Your task to perform on an android device: set default search engine in the chrome app Image 0: 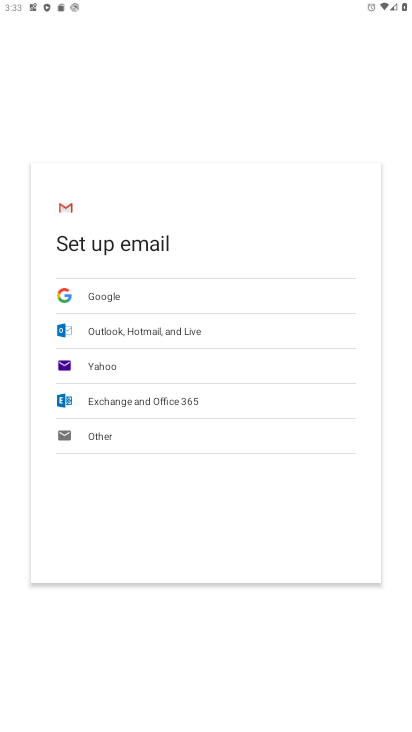
Step 0: press home button
Your task to perform on an android device: set default search engine in the chrome app Image 1: 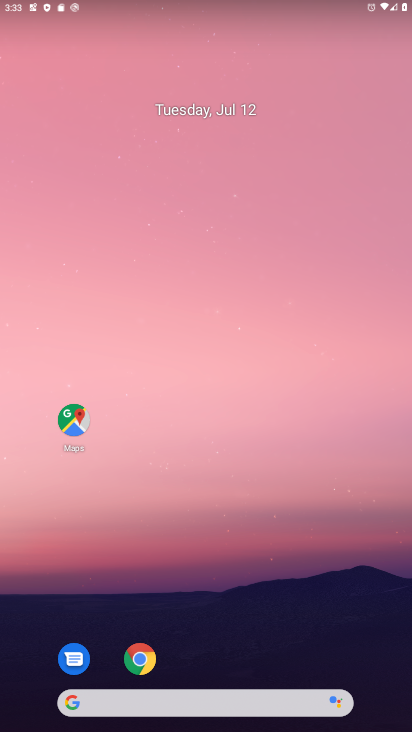
Step 1: click (136, 651)
Your task to perform on an android device: set default search engine in the chrome app Image 2: 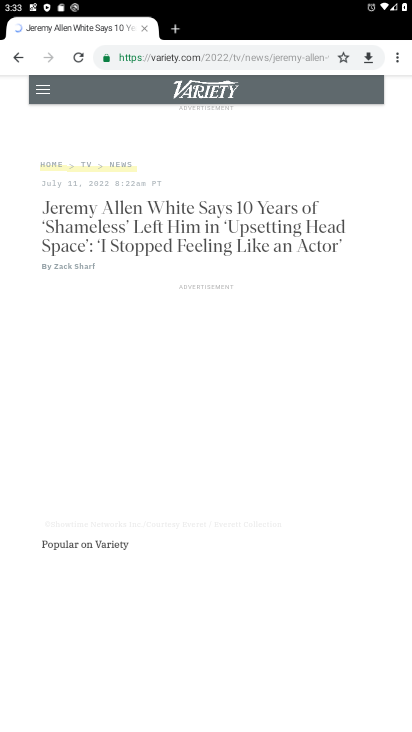
Step 2: drag from (136, 648) to (240, 303)
Your task to perform on an android device: set default search engine in the chrome app Image 3: 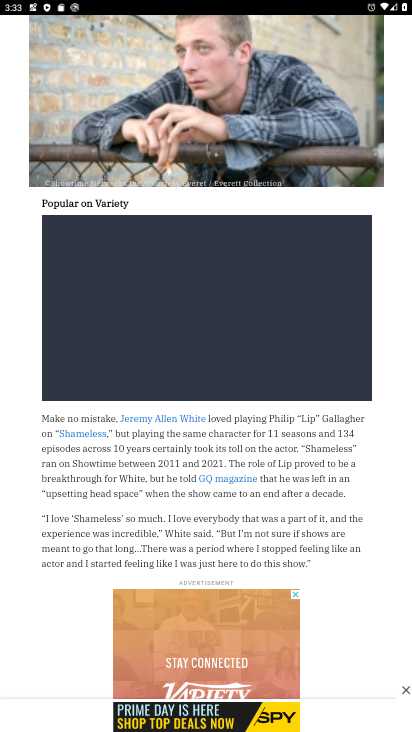
Step 3: drag from (328, 53) to (328, 441)
Your task to perform on an android device: set default search engine in the chrome app Image 4: 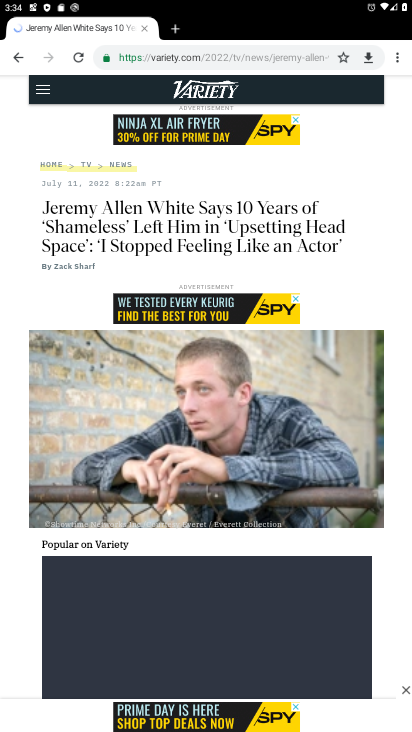
Step 4: click (311, 415)
Your task to perform on an android device: set default search engine in the chrome app Image 5: 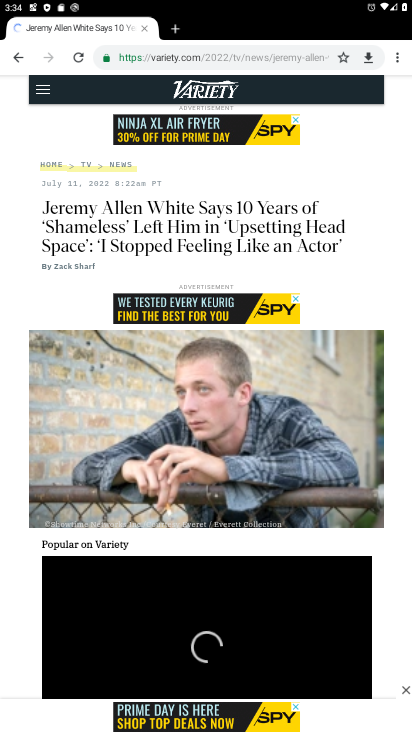
Step 5: drag from (334, 325) to (336, 362)
Your task to perform on an android device: set default search engine in the chrome app Image 6: 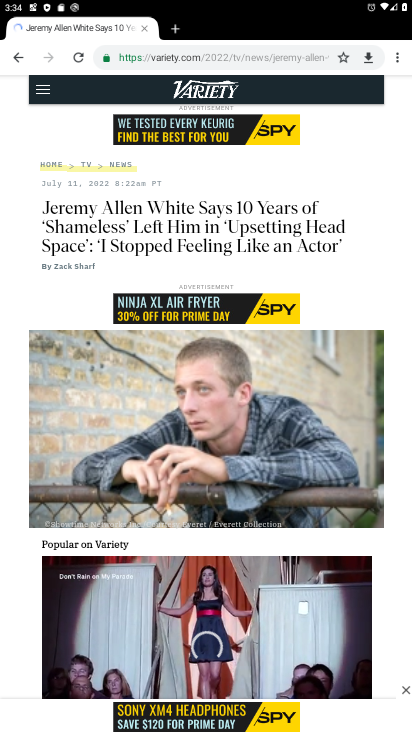
Step 6: click (390, 58)
Your task to perform on an android device: set default search engine in the chrome app Image 7: 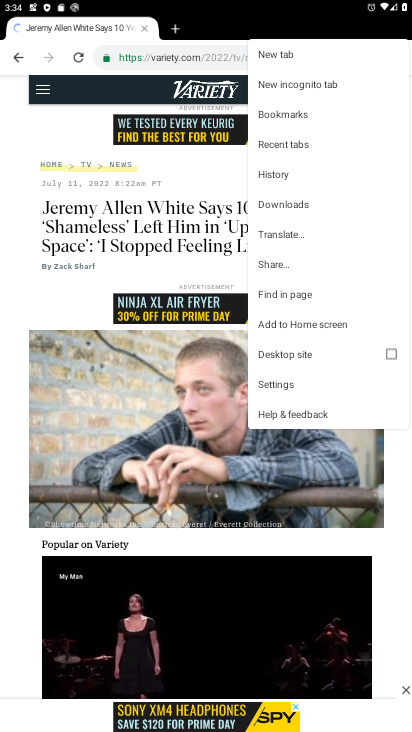
Step 7: click (312, 382)
Your task to perform on an android device: set default search engine in the chrome app Image 8: 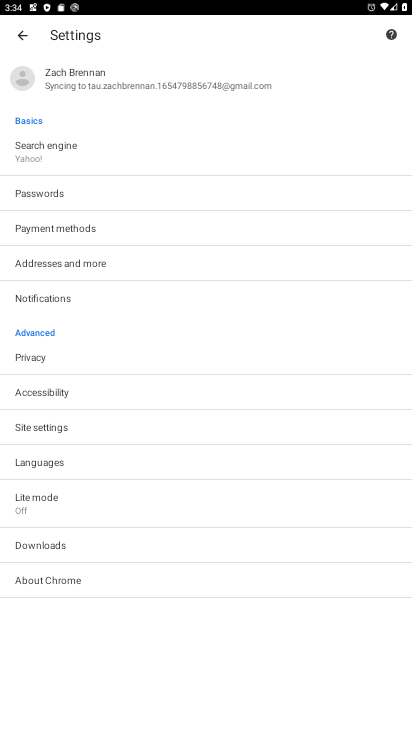
Step 8: click (72, 141)
Your task to perform on an android device: set default search engine in the chrome app Image 9: 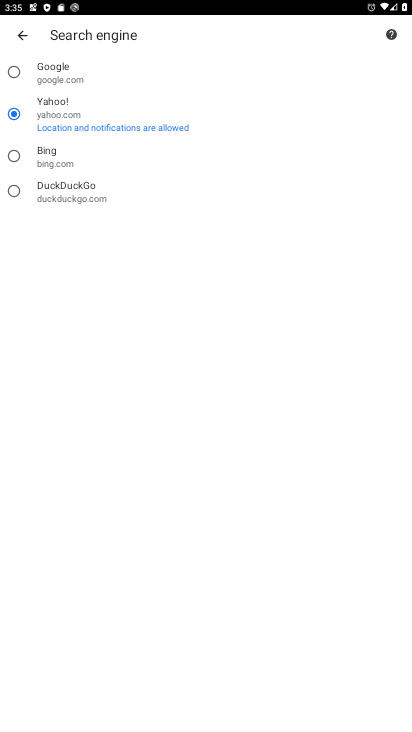
Step 9: click (16, 66)
Your task to perform on an android device: set default search engine in the chrome app Image 10: 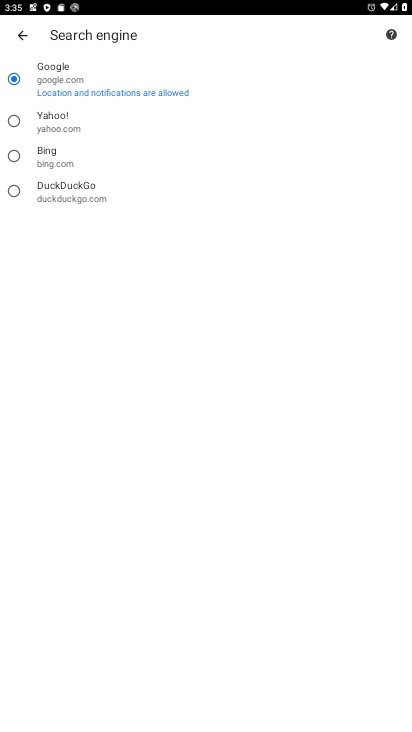
Step 10: task complete